Your task to perform on an android device: Go to accessibility settings Image 0: 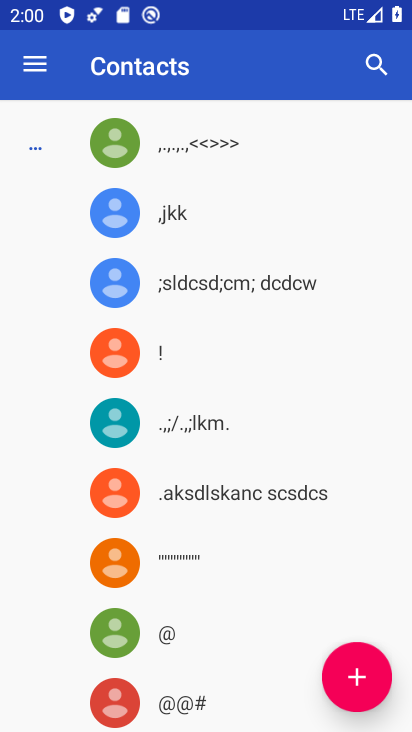
Step 0: drag from (203, 665) to (171, 301)
Your task to perform on an android device: Go to accessibility settings Image 1: 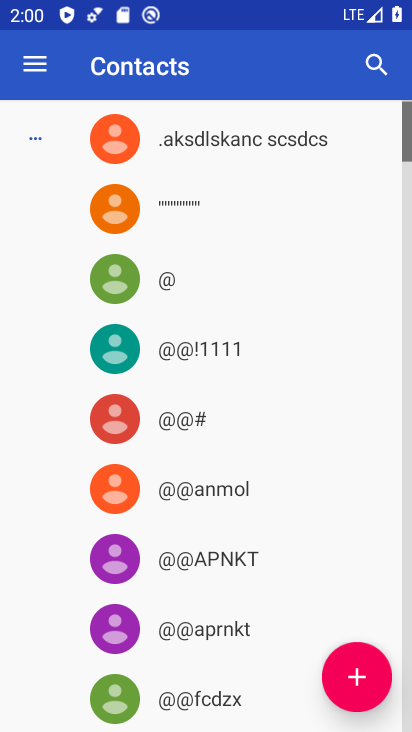
Step 1: press home button
Your task to perform on an android device: Go to accessibility settings Image 2: 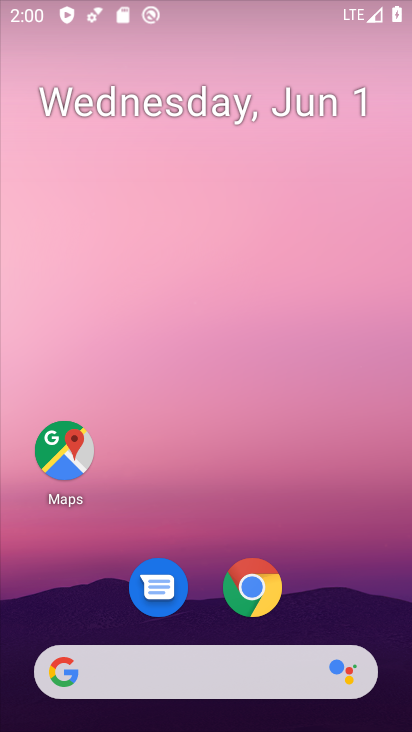
Step 2: drag from (271, 627) to (199, 160)
Your task to perform on an android device: Go to accessibility settings Image 3: 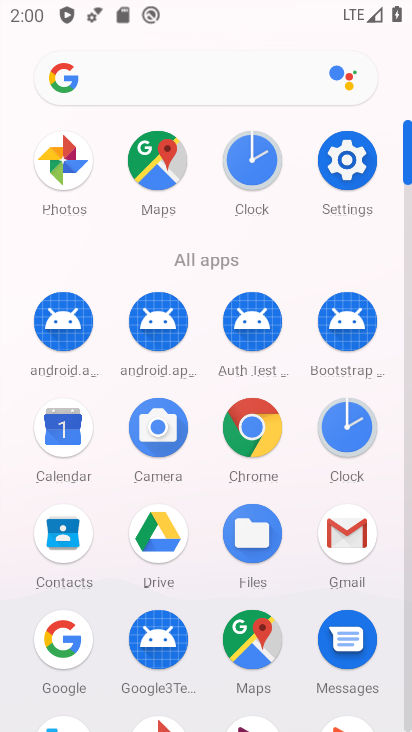
Step 3: click (346, 169)
Your task to perform on an android device: Go to accessibility settings Image 4: 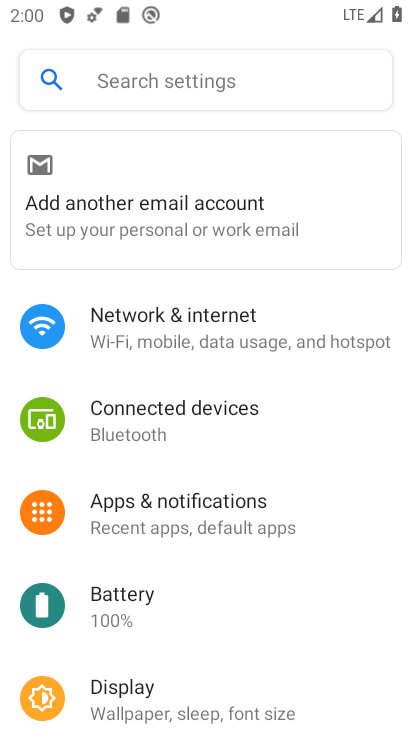
Step 4: drag from (273, 593) to (248, 40)
Your task to perform on an android device: Go to accessibility settings Image 5: 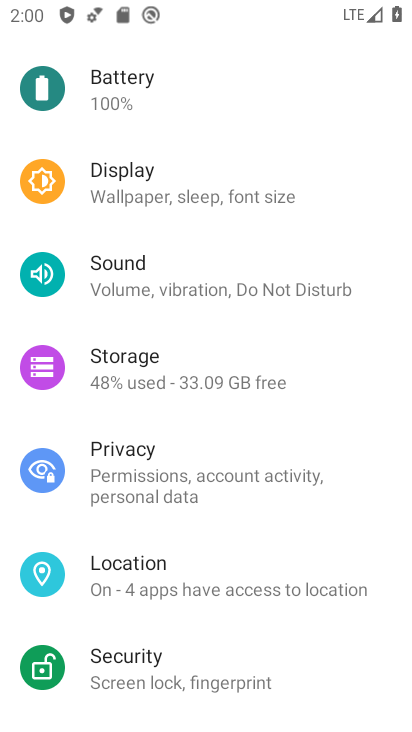
Step 5: drag from (214, 615) to (176, 67)
Your task to perform on an android device: Go to accessibility settings Image 6: 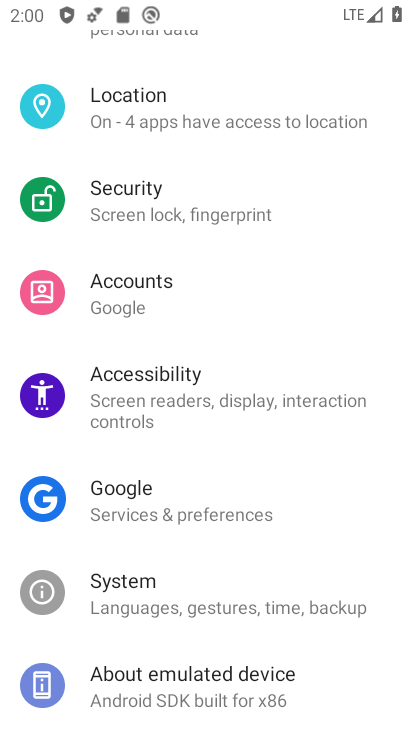
Step 6: click (107, 392)
Your task to perform on an android device: Go to accessibility settings Image 7: 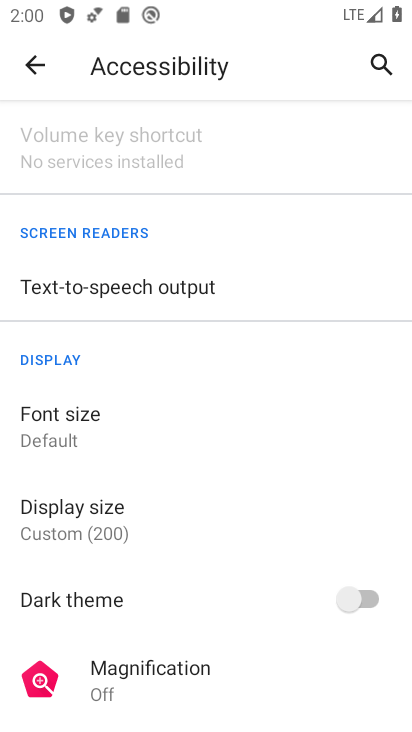
Step 7: task complete